Your task to perform on an android device: turn on sleep mode Image 0: 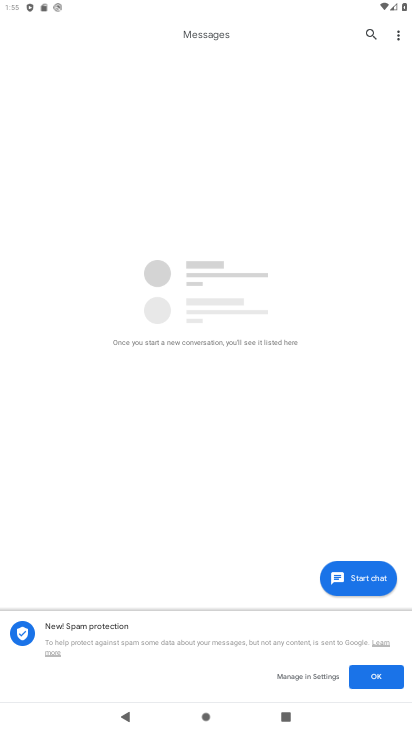
Step 0: press home button
Your task to perform on an android device: turn on sleep mode Image 1: 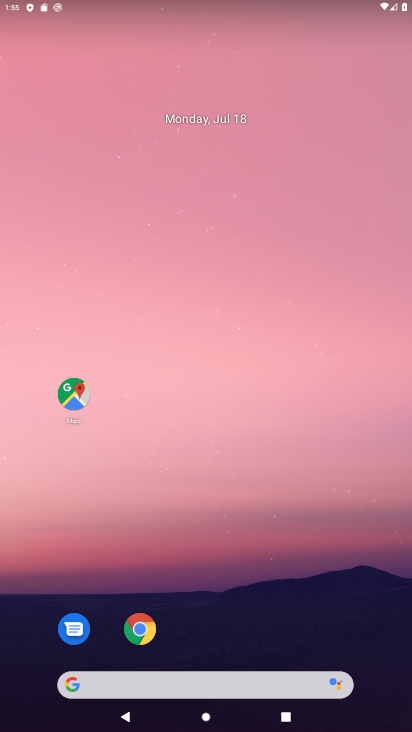
Step 1: drag from (189, 643) to (189, 224)
Your task to perform on an android device: turn on sleep mode Image 2: 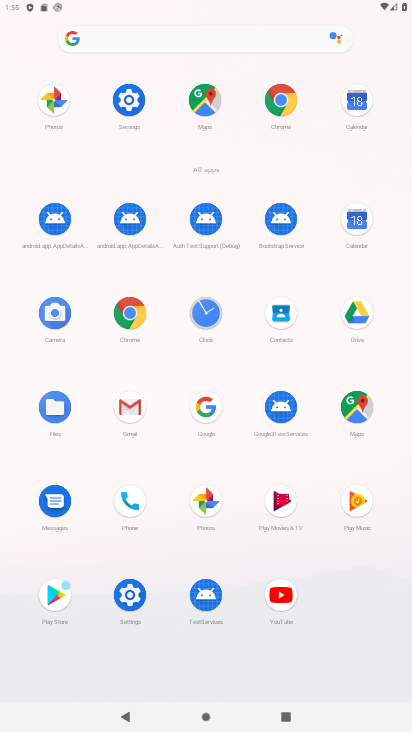
Step 2: click (124, 116)
Your task to perform on an android device: turn on sleep mode Image 3: 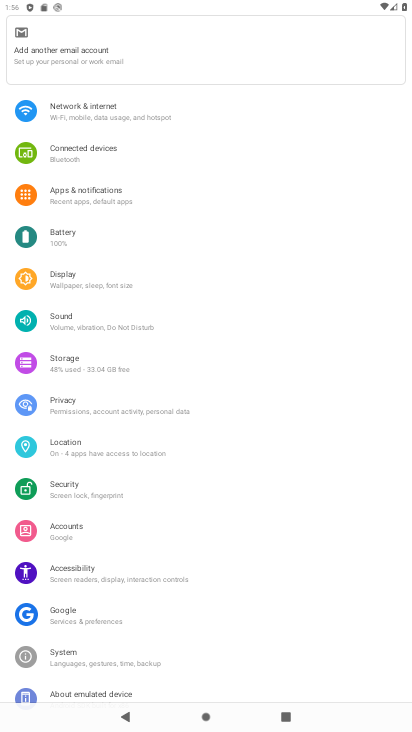
Step 3: click (100, 287)
Your task to perform on an android device: turn on sleep mode Image 4: 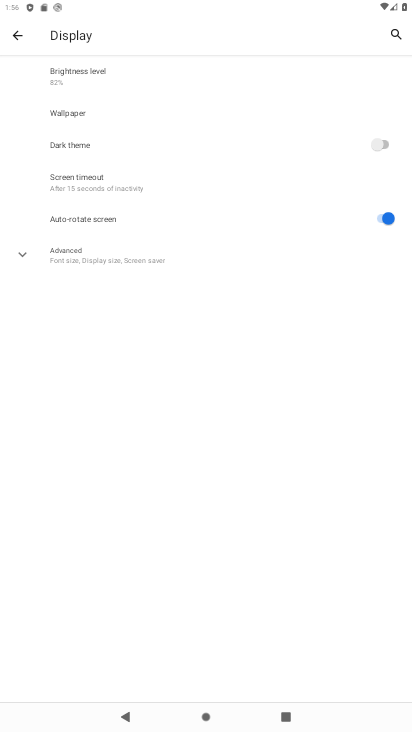
Step 4: click (136, 184)
Your task to perform on an android device: turn on sleep mode Image 5: 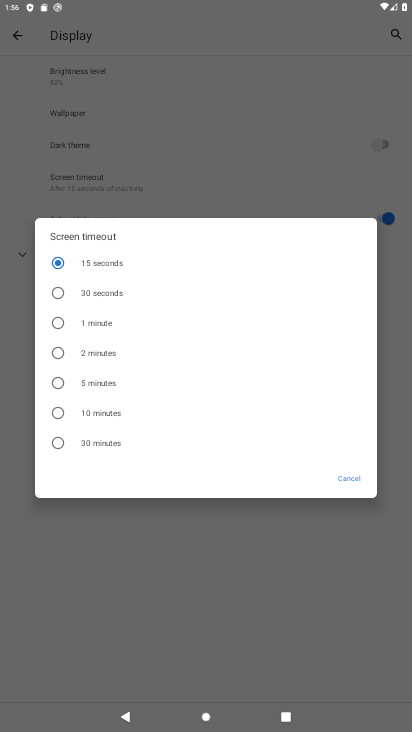
Step 5: click (97, 373)
Your task to perform on an android device: turn on sleep mode Image 6: 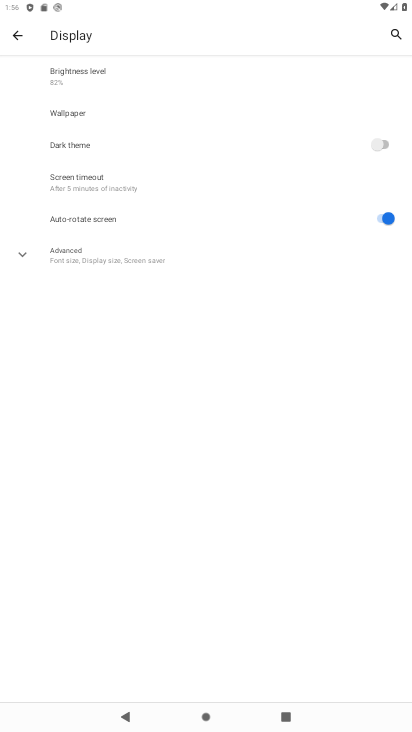
Step 6: task complete